Your task to perform on an android device: turn vacation reply on in the gmail app Image 0: 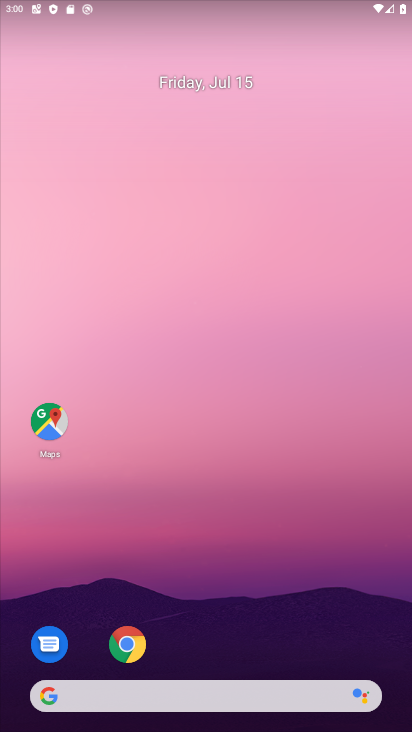
Step 0: drag from (266, 643) to (261, 146)
Your task to perform on an android device: turn vacation reply on in the gmail app Image 1: 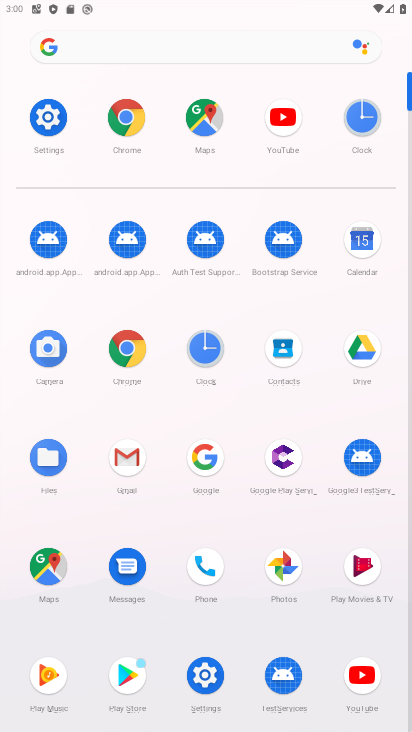
Step 1: click (126, 452)
Your task to perform on an android device: turn vacation reply on in the gmail app Image 2: 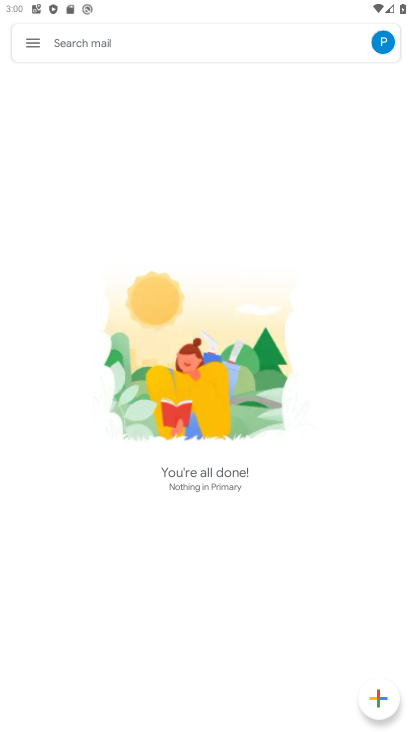
Step 2: click (32, 41)
Your task to perform on an android device: turn vacation reply on in the gmail app Image 3: 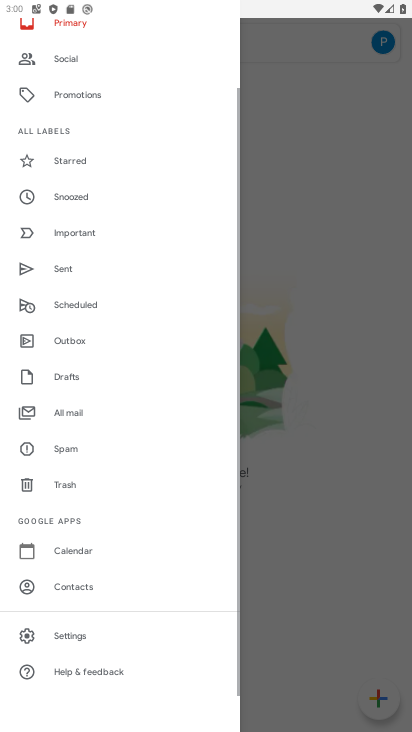
Step 3: click (63, 645)
Your task to perform on an android device: turn vacation reply on in the gmail app Image 4: 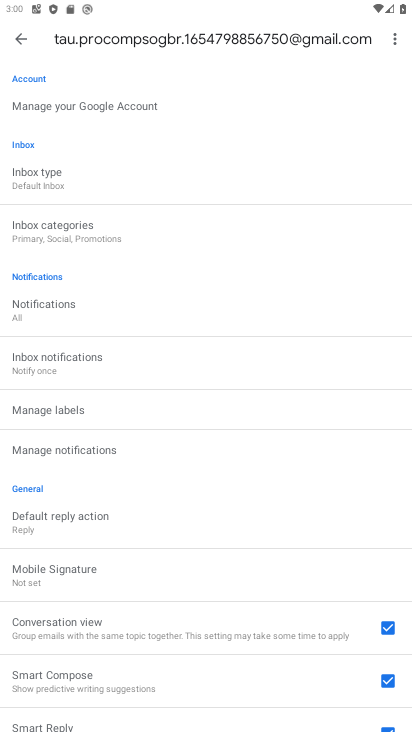
Step 4: drag from (96, 624) to (169, 103)
Your task to perform on an android device: turn vacation reply on in the gmail app Image 5: 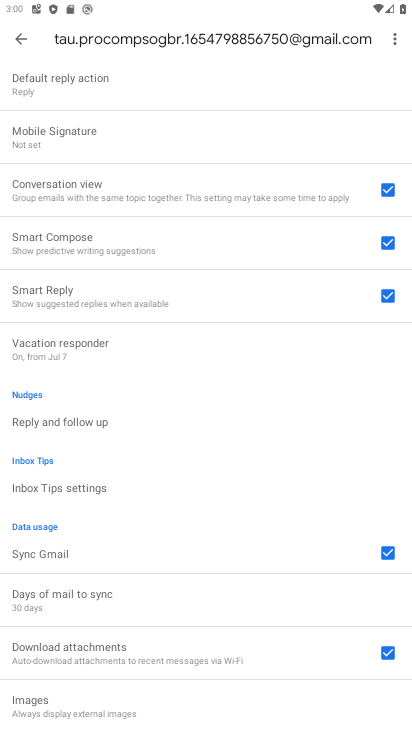
Step 5: click (80, 365)
Your task to perform on an android device: turn vacation reply on in the gmail app Image 6: 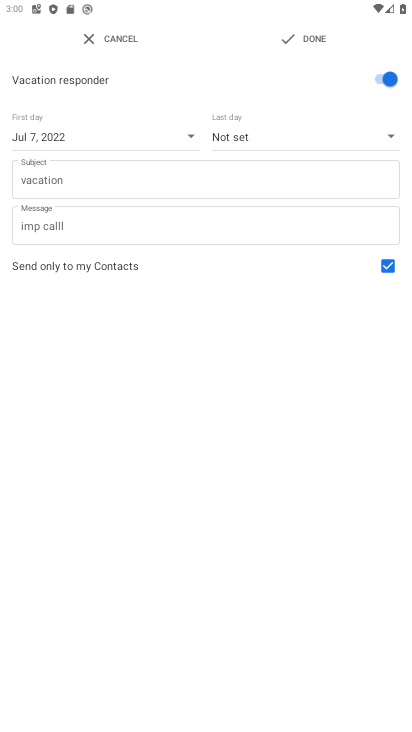
Step 6: task complete